Your task to perform on an android device: Search for vegetarian restaurants on Maps Image 0: 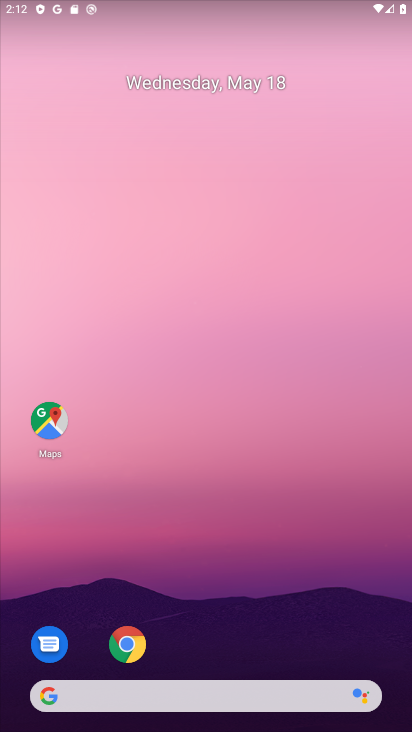
Step 0: click (50, 421)
Your task to perform on an android device: Search for vegetarian restaurants on Maps Image 1: 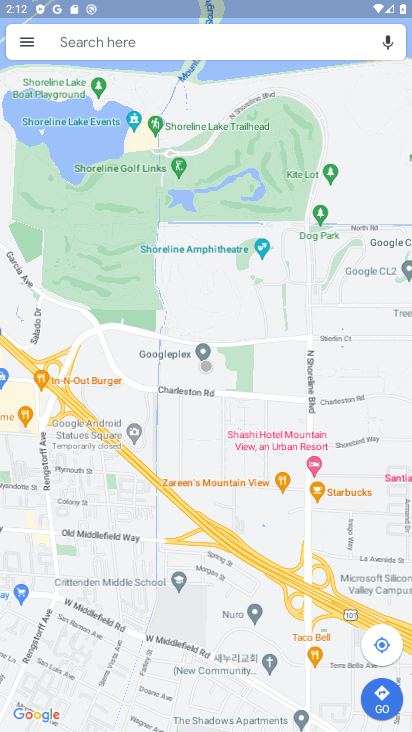
Step 1: click (127, 41)
Your task to perform on an android device: Search for vegetarian restaurants on Maps Image 2: 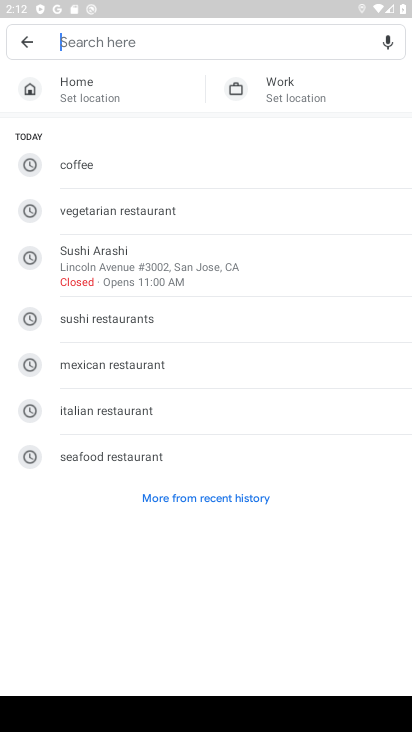
Step 2: click (135, 36)
Your task to perform on an android device: Search for vegetarian restaurants on Maps Image 3: 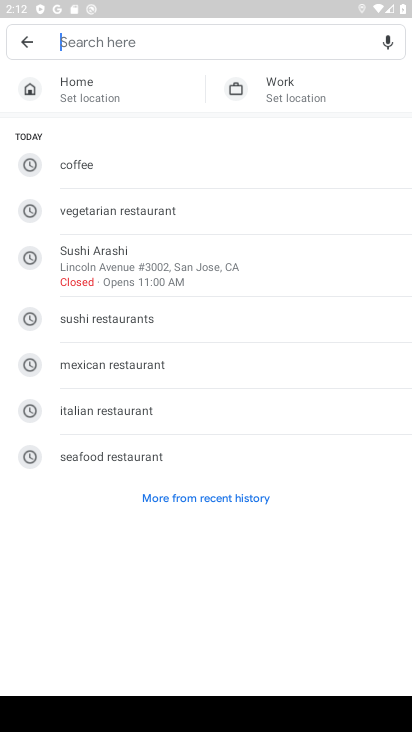
Step 3: type "vegetarian restaurants"
Your task to perform on an android device: Search for vegetarian restaurants on Maps Image 4: 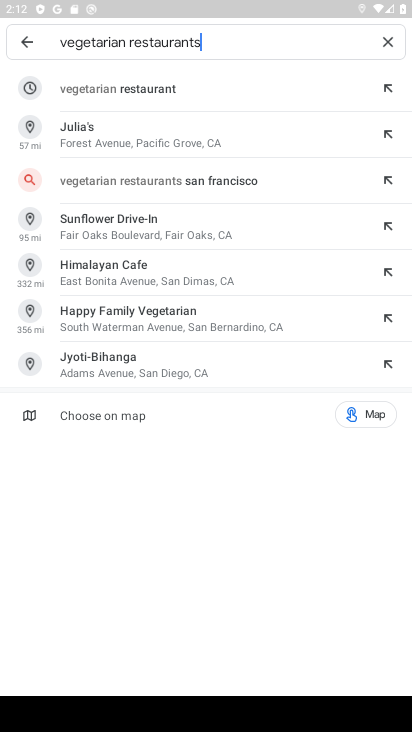
Step 4: click (117, 93)
Your task to perform on an android device: Search for vegetarian restaurants on Maps Image 5: 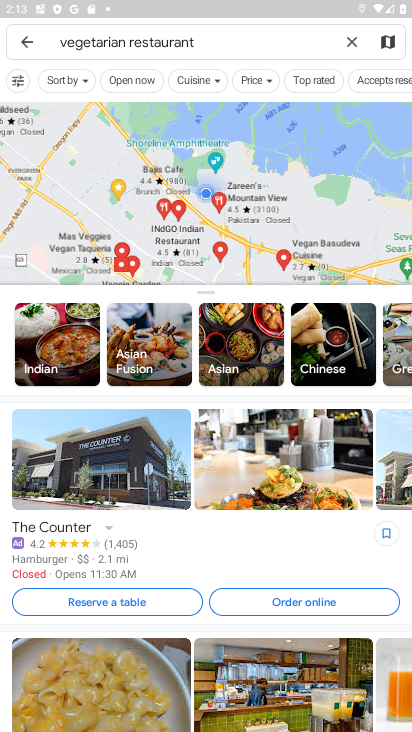
Step 5: task complete